Your task to perform on an android device: toggle javascript in the chrome app Image 0: 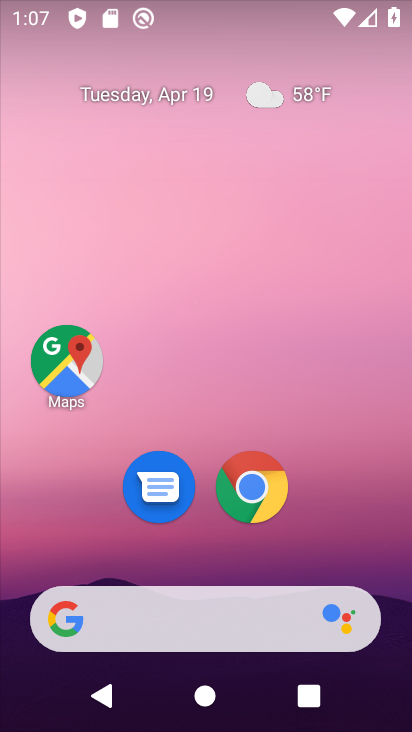
Step 0: click (252, 482)
Your task to perform on an android device: toggle javascript in the chrome app Image 1: 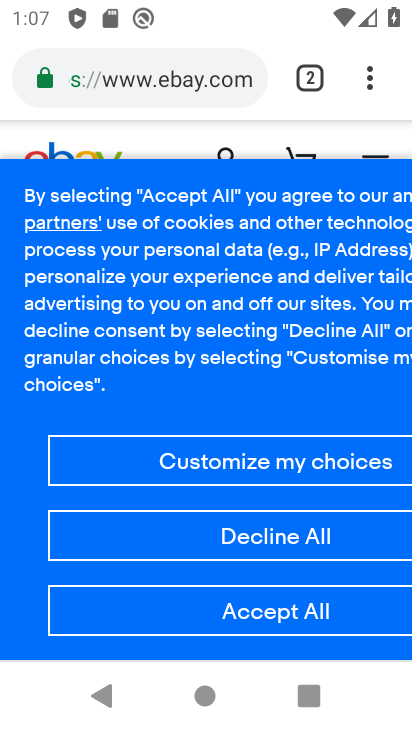
Step 1: click (369, 74)
Your task to perform on an android device: toggle javascript in the chrome app Image 2: 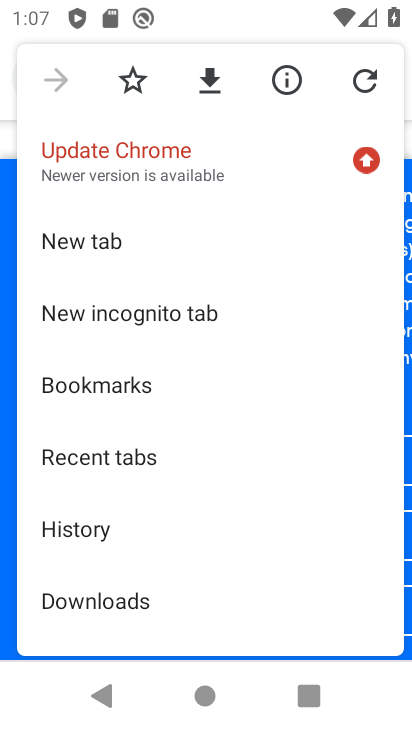
Step 2: drag from (127, 587) to (132, 191)
Your task to perform on an android device: toggle javascript in the chrome app Image 3: 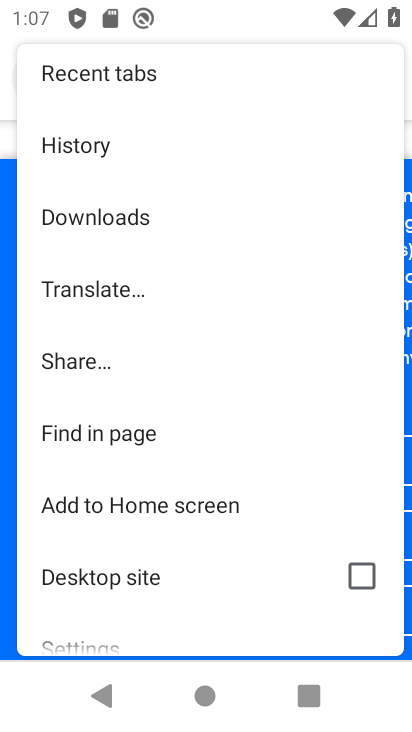
Step 3: drag from (147, 617) to (150, 101)
Your task to perform on an android device: toggle javascript in the chrome app Image 4: 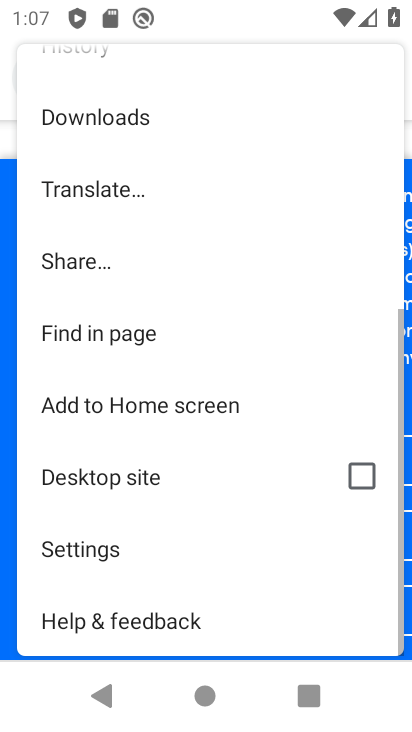
Step 4: click (98, 550)
Your task to perform on an android device: toggle javascript in the chrome app Image 5: 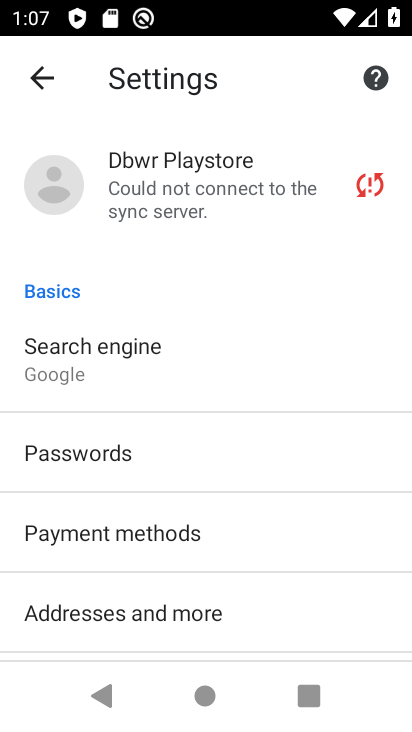
Step 5: drag from (173, 535) to (172, 152)
Your task to perform on an android device: toggle javascript in the chrome app Image 6: 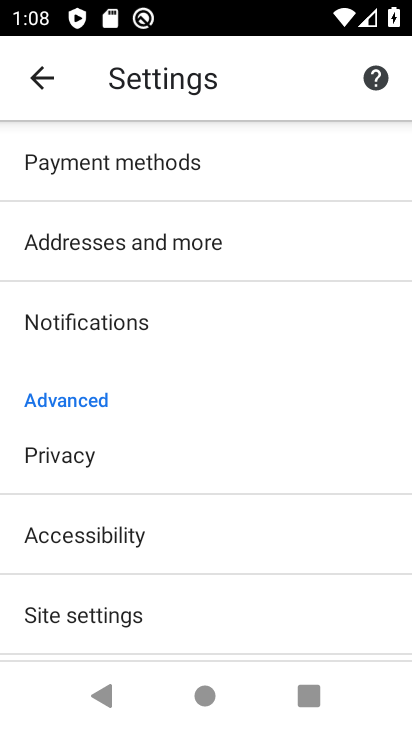
Step 6: click (90, 612)
Your task to perform on an android device: toggle javascript in the chrome app Image 7: 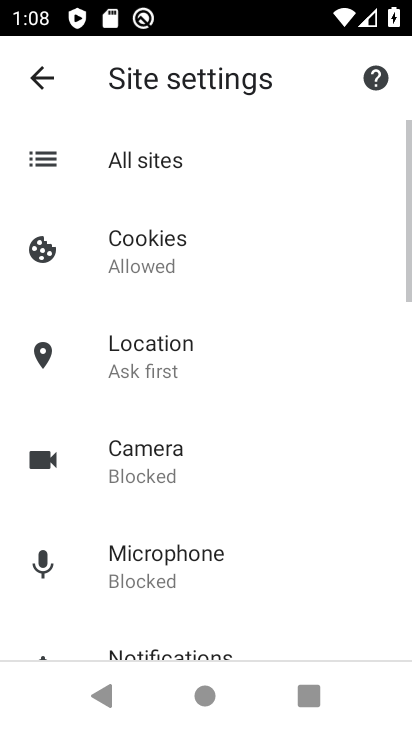
Step 7: drag from (194, 616) to (196, 170)
Your task to perform on an android device: toggle javascript in the chrome app Image 8: 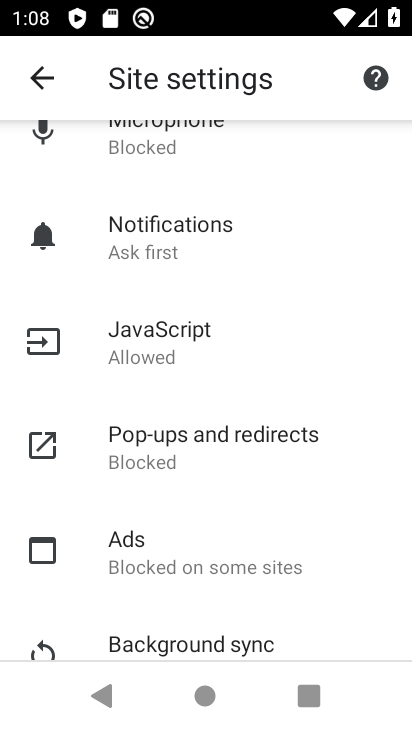
Step 8: click (158, 352)
Your task to perform on an android device: toggle javascript in the chrome app Image 9: 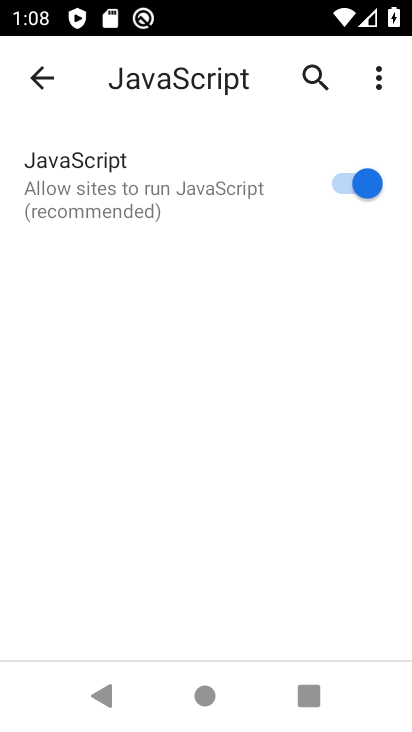
Step 9: click (345, 179)
Your task to perform on an android device: toggle javascript in the chrome app Image 10: 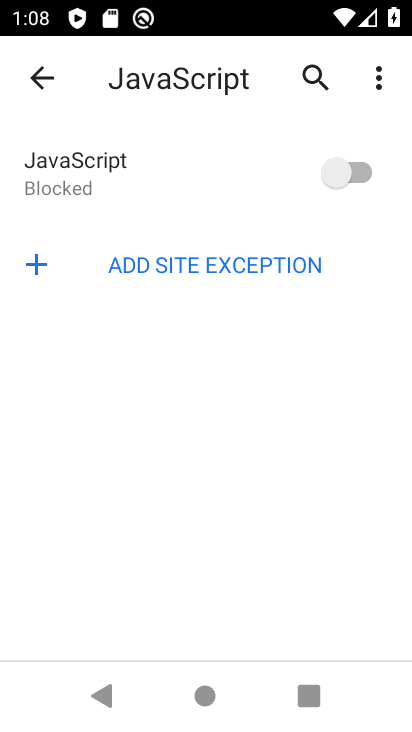
Step 10: task complete